Your task to perform on an android device: Go to wifi settings Image 0: 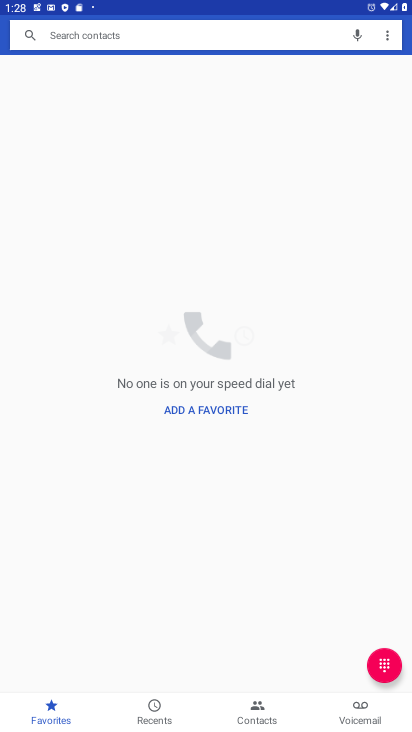
Step 0: press home button
Your task to perform on an android device: Go to wifi settings Image 1: 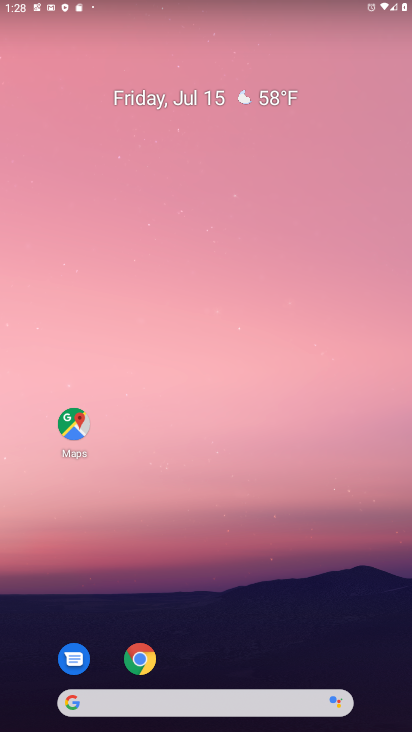
Step 1: drag from (215, 668) to (224, 307)
Your task to perform on an android device: Go to wifi settings Image 2: 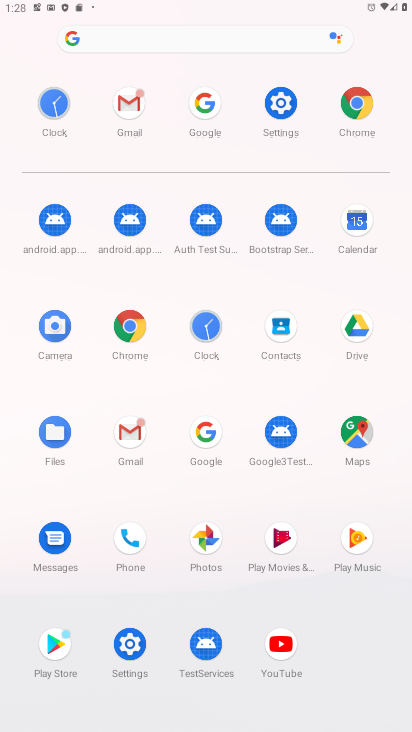
Step 2: click (269, 107)
Your task to perform on an android device: Go to wifi settings Image 3: 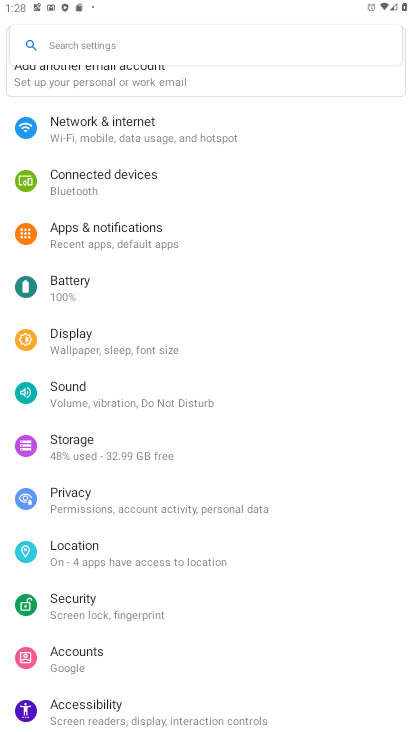
Step 3: click (108, 140)
Your task to perform on an android device: Go to wifi settings Image 4: 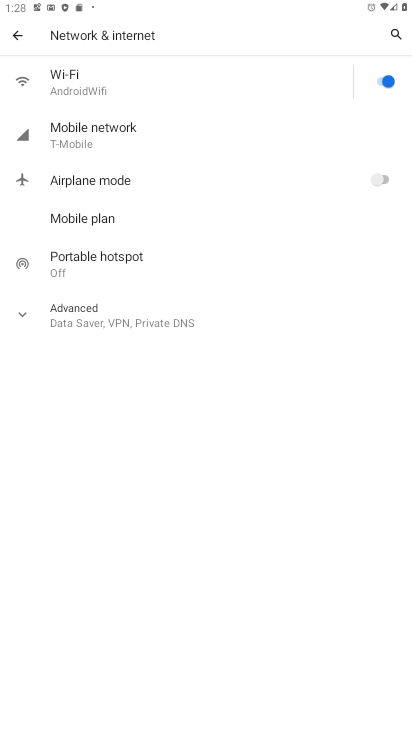
Step 4: click (72, 77)
Your task to perform on an android device: Go to wifi settings Image 5: 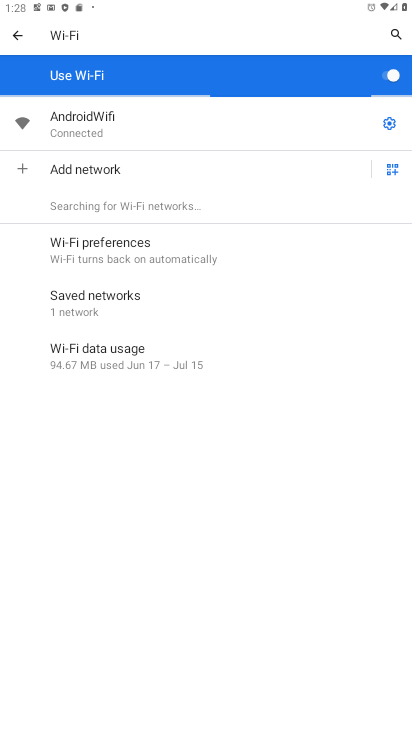
Step 5: task complete